Your task to perform on an android device: Search for sushi restaurants on Maps Image 0: 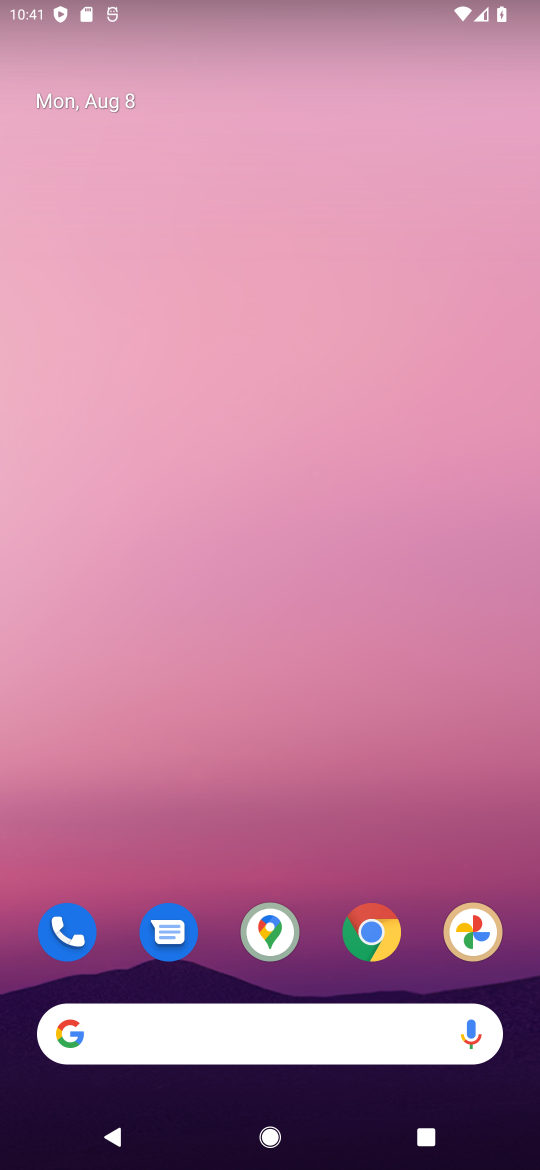
Step 0: click (273, 918)
Your task to perform on an android device: Search for sushi restaurants on Maps Image 1: 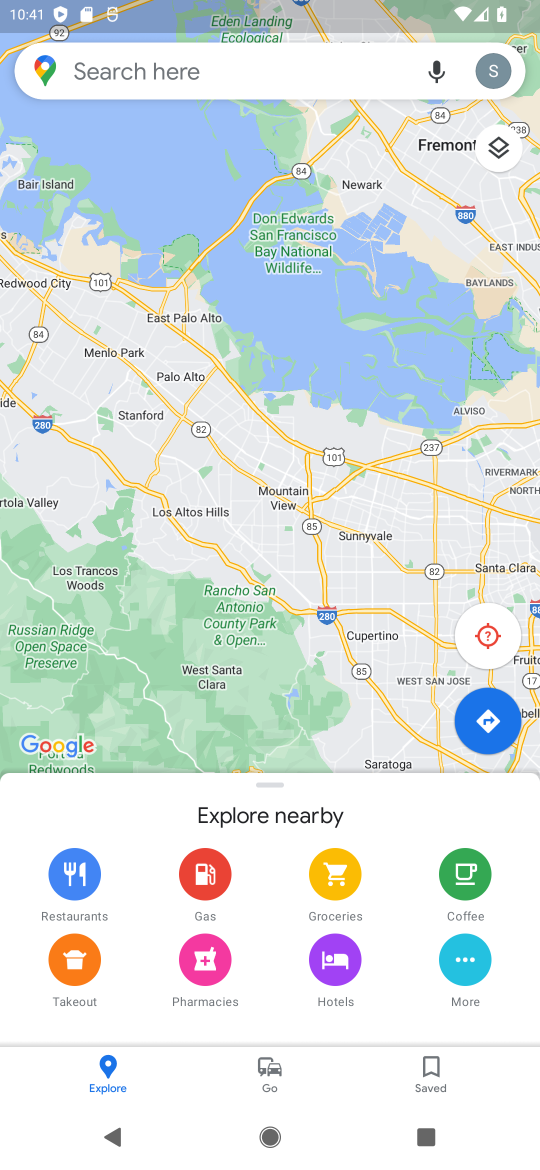
Step 1: click (129, 105)
Your task to perform on an android device: Search for sushi restaurants on Maps Image 2: 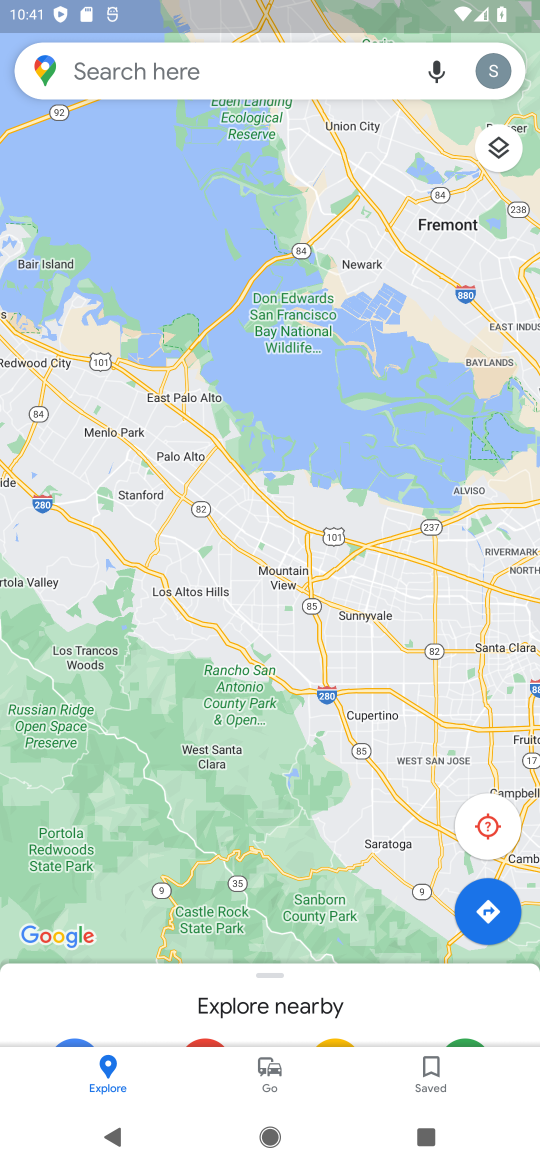
Step 2: click (153, 74)
Your task to perform on an android device: Search for sushi restaurants on Maps Image 3: 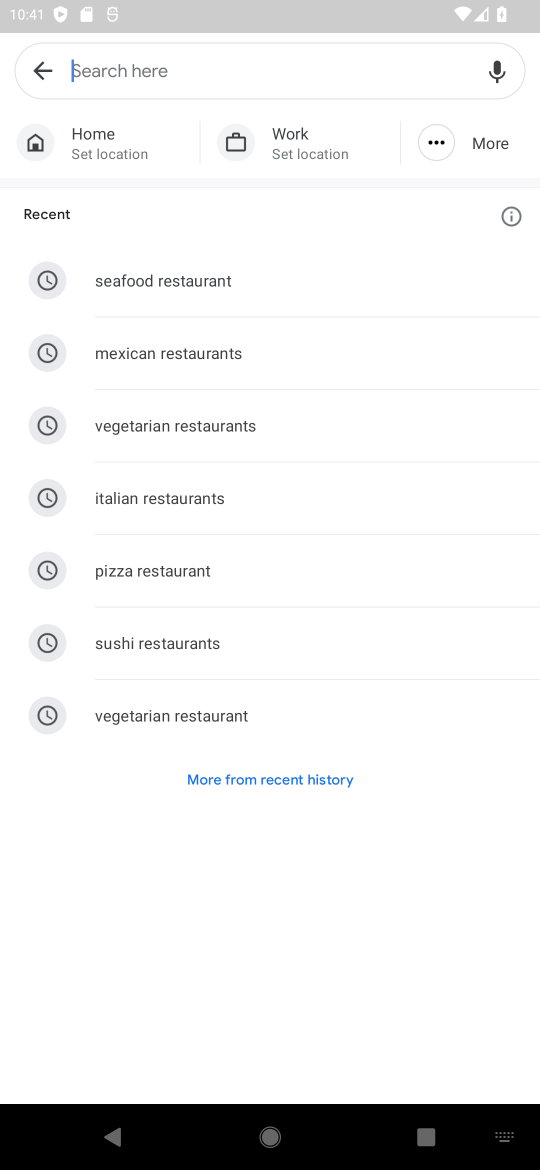
Step 3: click (261, 658)
Your task to perform on an android device: Search for sushi restaurants on Maps Image 4: 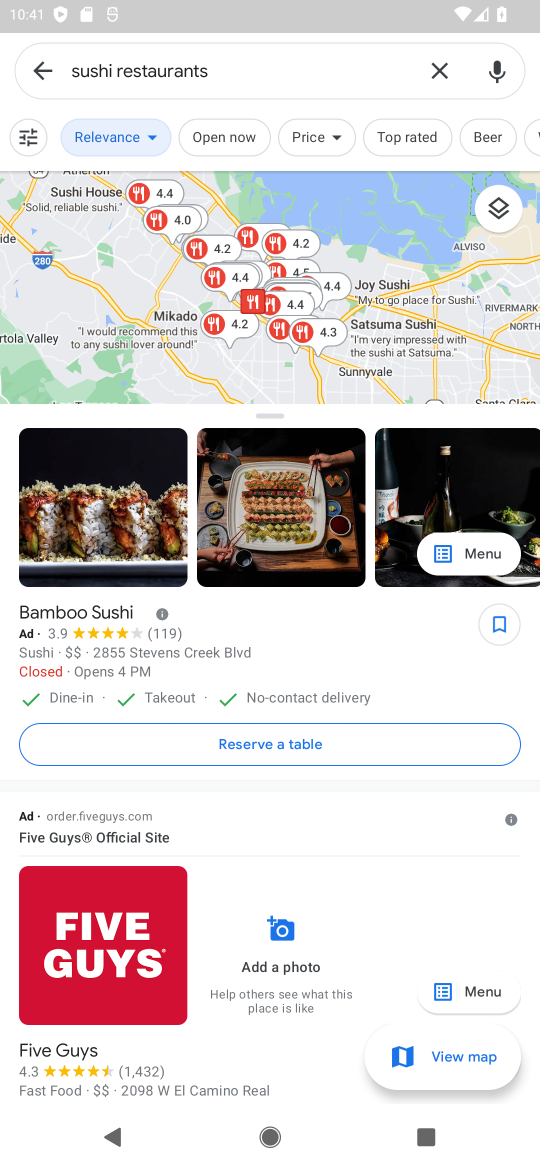
Step 4: task complete